Your task to perform on an android device: toggle sleep mode Image 0: 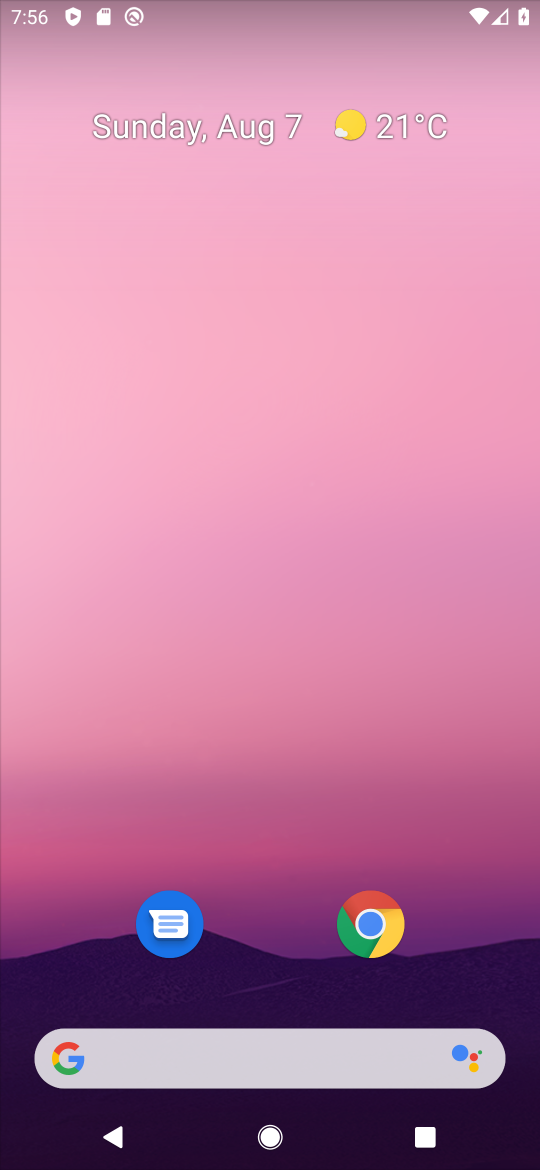
Step 0: drag from (253, 850) to (257, 0)
Your task to perform on an android device: toggle sleep mode Image 1: 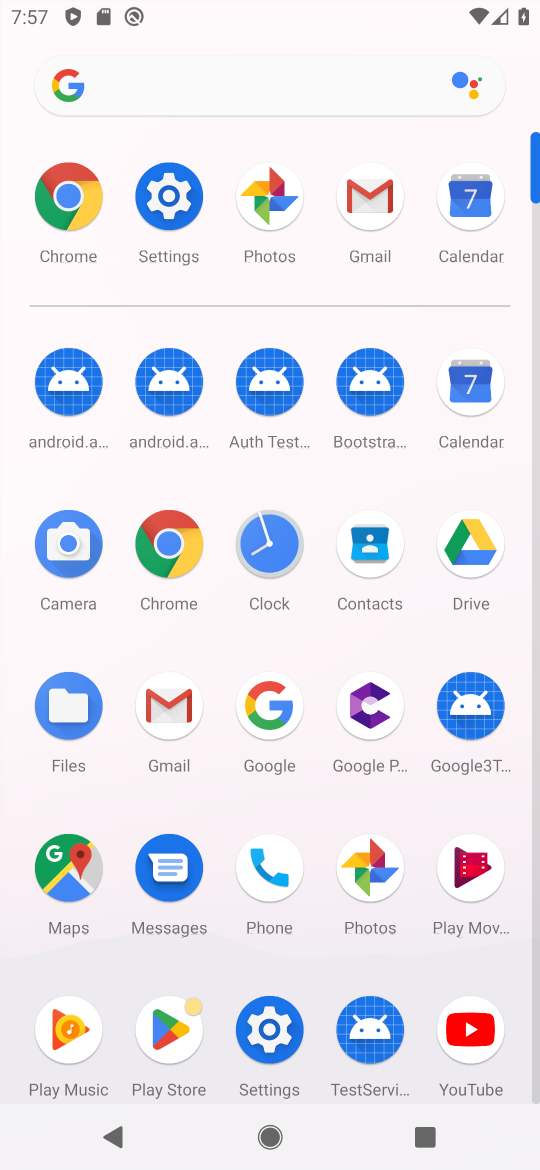
Step 1: click (169, 183)
Your task to perform on an android device: toggle sleep mode Image 2: 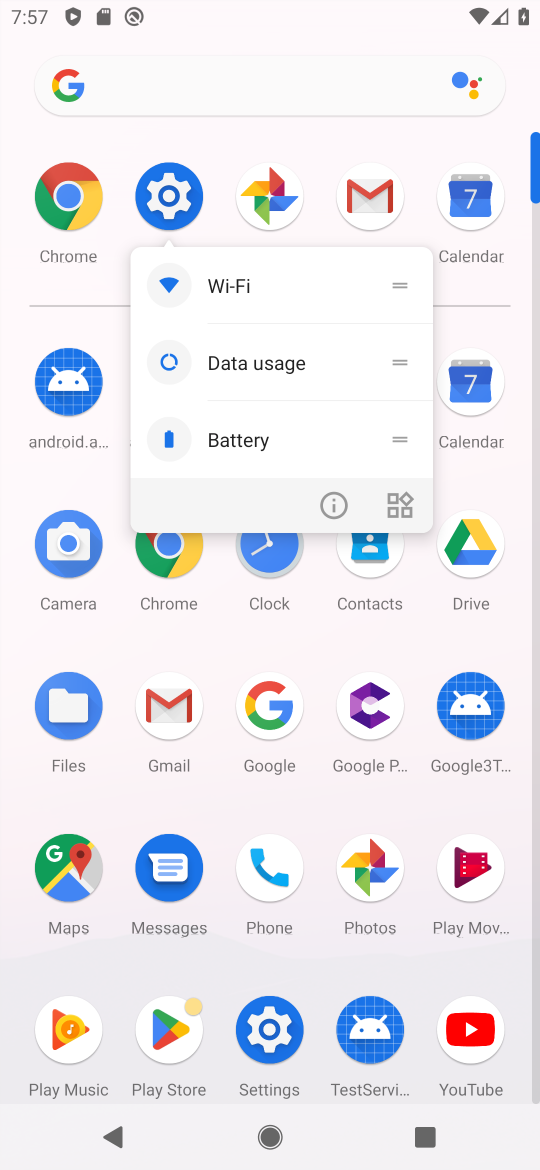
Step 2: click (169, 183)
Your task to perform on an android device: toggle sleep mode Image 3: 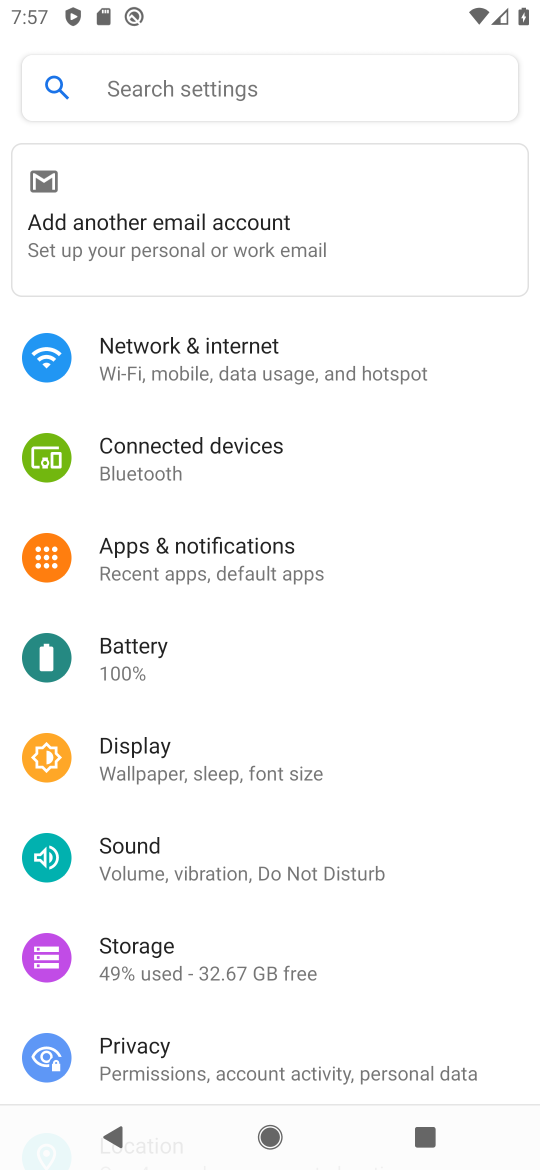
Step 3: click (190, 760)
Your task to perform on an android device: toggle sleep mode Image 4: 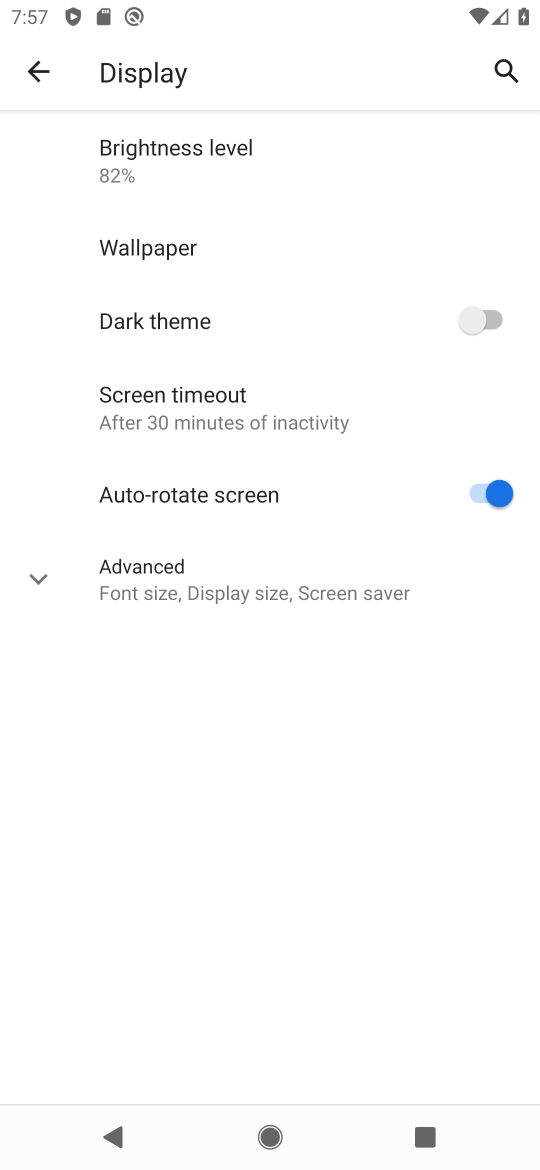
Step 4: click (42, 570)
Your task to perform on an android device: toggle sleep mode Image 5: 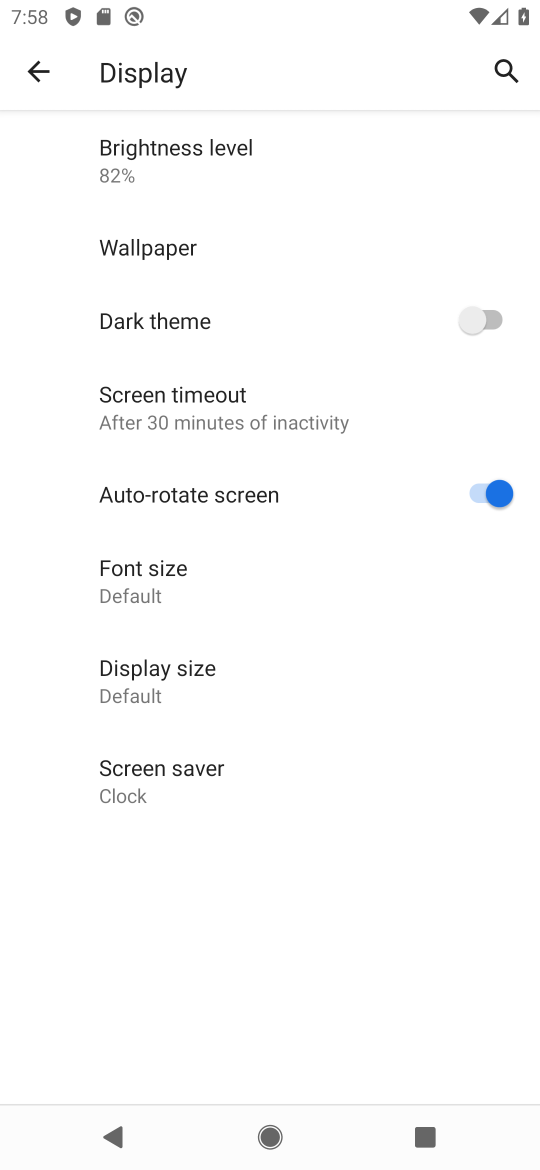
Step 5: task complete